Your task to perform on an android device: turn on notifications settings in the gmail app Image 0: 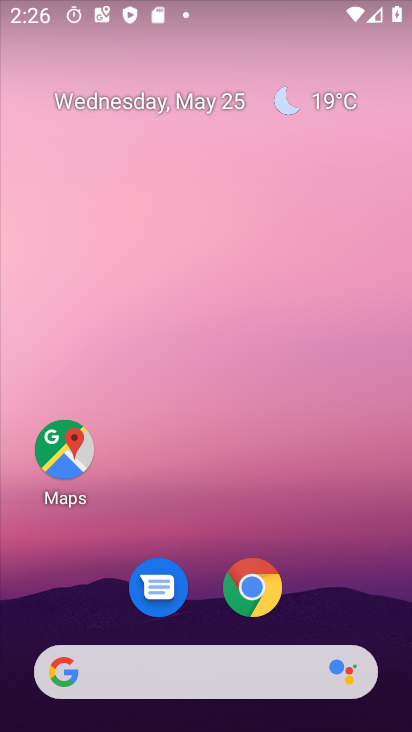
Step 0: drag from (205, 600) to (261, 86)
Your task to perform on an android device: turn on notifications settings in the gmail app Image 1: 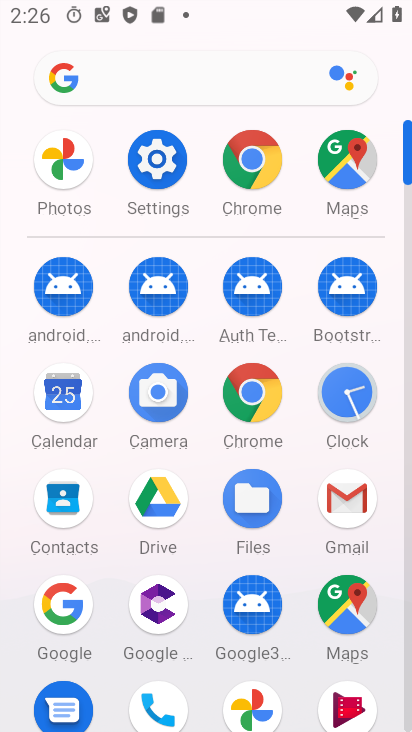
Step 1: click (344, 501)
Your task to perform on an android device: turn on notifications settings in the gmail app Image 2: 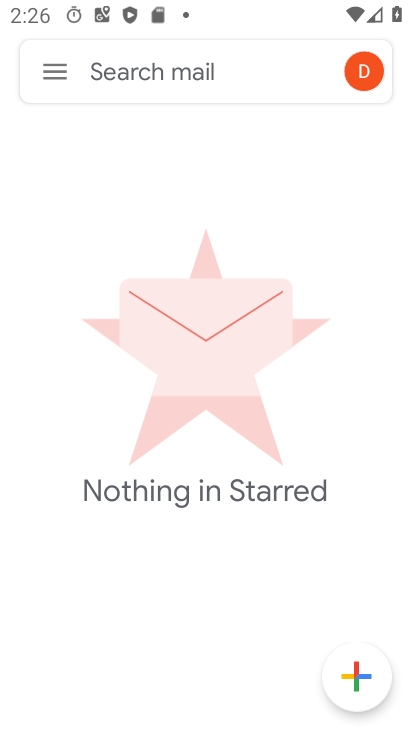
Step 2: click (51, 69)
Your task to perform on an android device: turn on notifications settings in the gmail app Image 3: 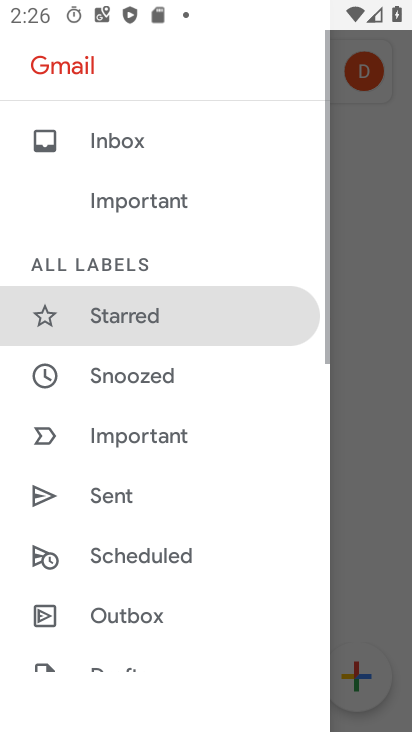
Step 3: drag from (174, 581) to (257, 176)
Your task to perform on an android device: turn on notifications settings in the gmail app Image 4: 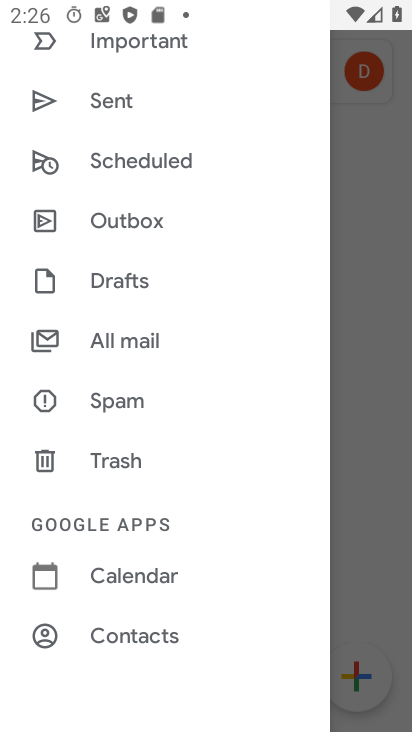
Step 4: drag from (179, 597) to (186, 337)
Your task to perform on an android device: turn on notifications settings in the gmail app Image 5: 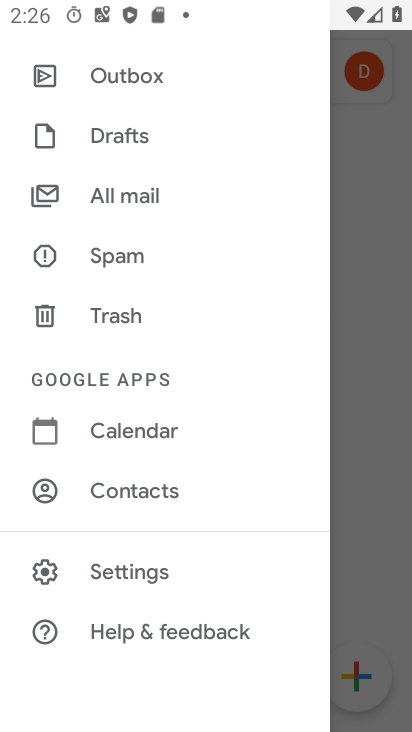
Step 5: drag from (172, 192) to (170, 447)
Your task to perform on an android device: turn on notifications settings in the gmail app Image 6: 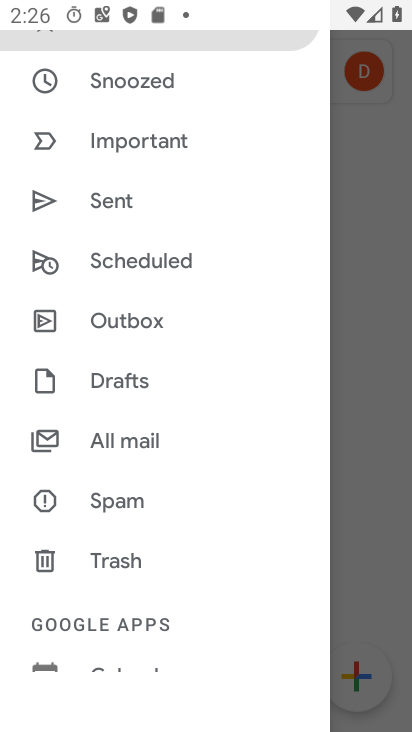
Step 6: drag from (187, 640) to (215, 251)
Your task to perform on an android device: turn on notifications settings in the gmail app Image 7: 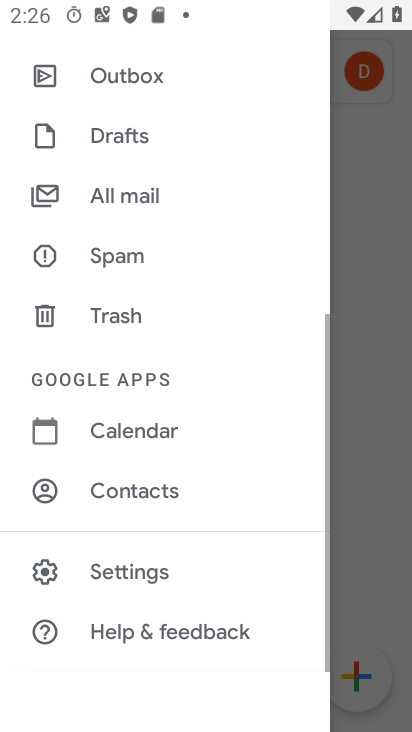
Step 7: click (168, 552)
Your task to perform on an android device: turn on notifications settings in the gmail app Image 8: 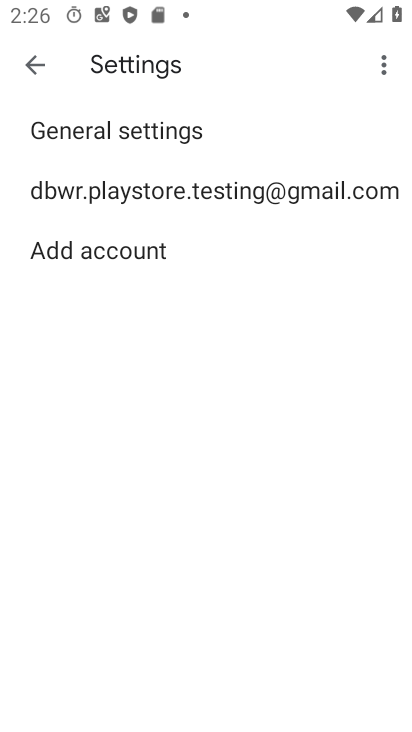
Step 8: click (182, 192)
Your task to perform on an android device: turn on notifications settings in the gmail app Image 9: 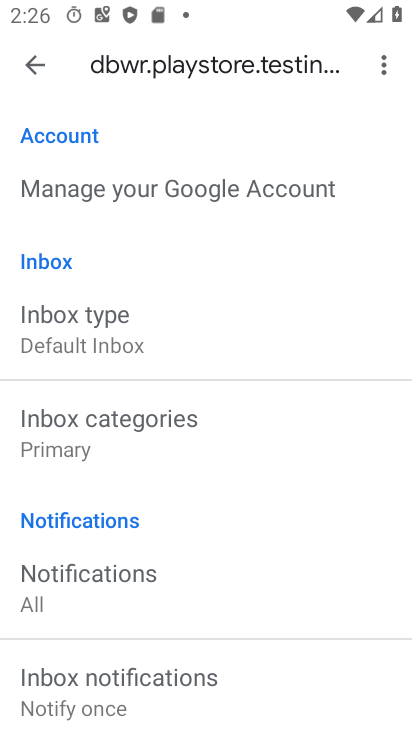
Step 9: click (132, 595)
Your task to perform on an android device: turn on notifications settings in the gmail app Image 10: 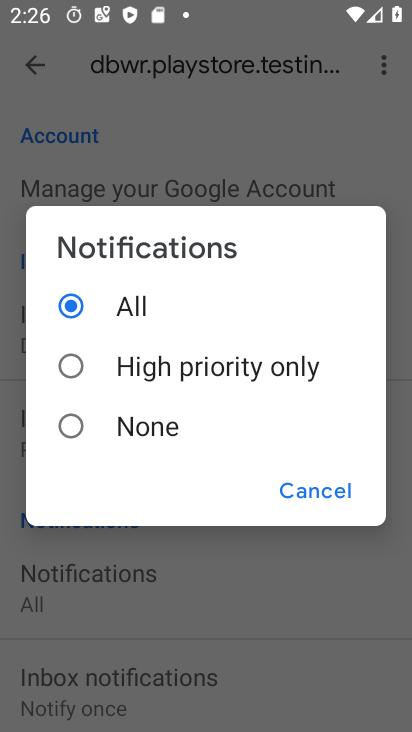
Step 10: task complete